Your task to perform on an android device: Search for pizza restaurants on Maps Image 0: 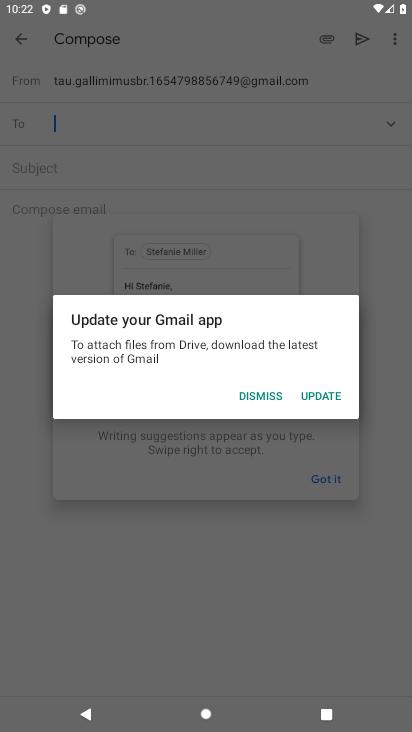
Step 0: press home button
Your task to perform on an android device: Search for pizza restaurants on Maps Image 1: 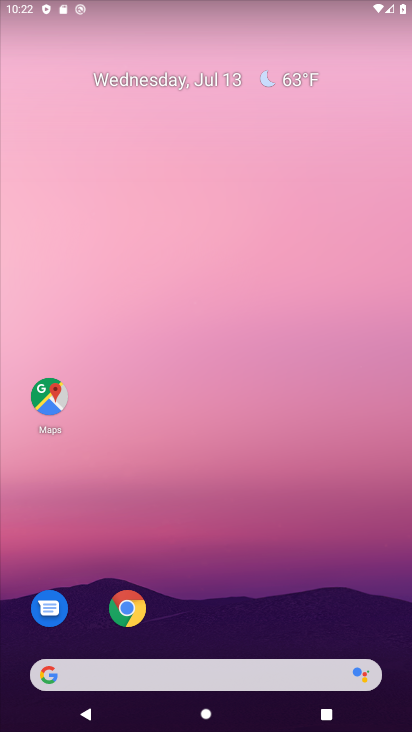
Step 1: drag from (263, 637) to (404, 624)
Your task to perform on an android device: Search for pizza restaurants on Maps Image 2: 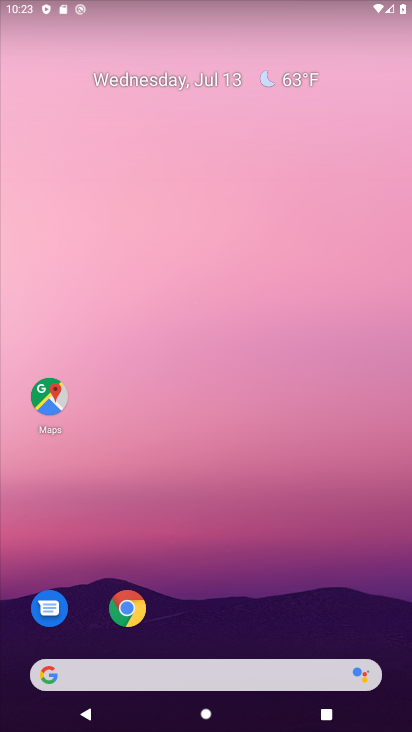
Step 2: click (60, 385)
Your task to perform on an android device: Search for pizza restaurants on Maps Image 3: 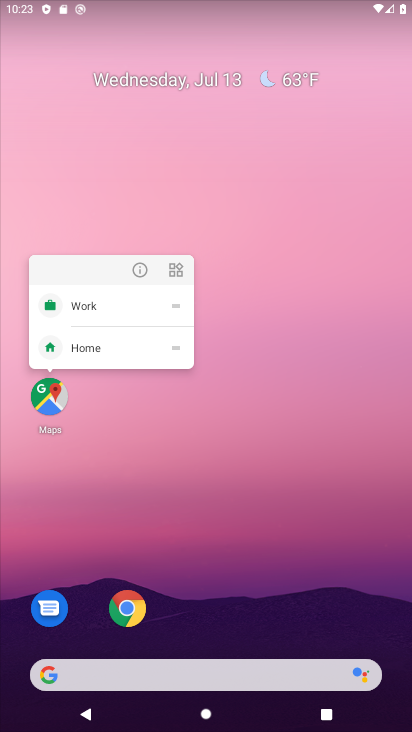
Step 3: click (45, 399)
Your task to perform on an android device: Search for pizza restaurants on Maps Image 4: 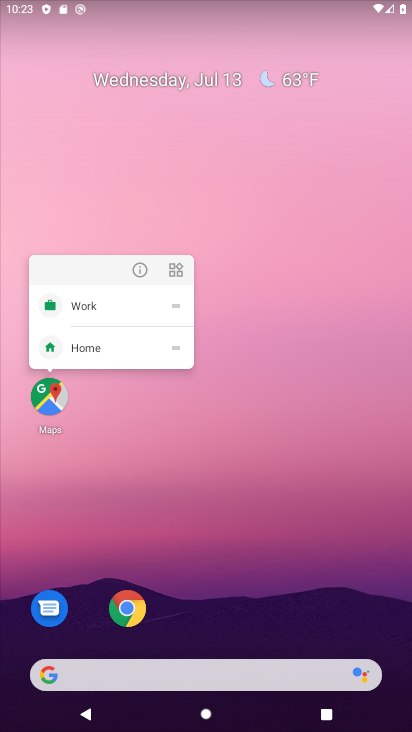
Step 4: click (45, 399)
Your task to perform on an android device: Search for pizza restaurants on Maps Image 5: 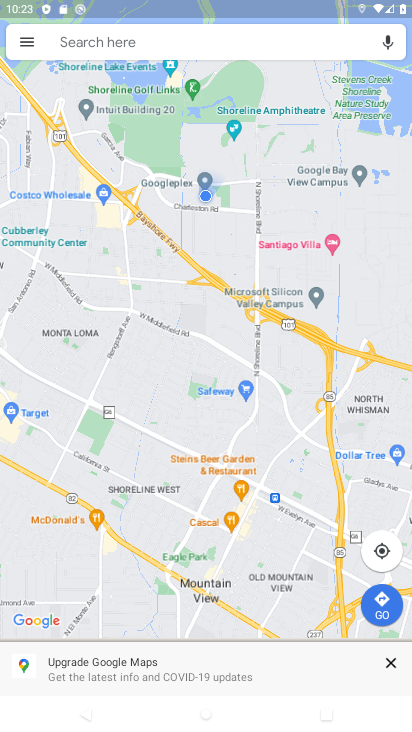
Step 5: click (118, 35)
Your task to perform on an android device: Search for pizza restaurants on Maps Image 6: 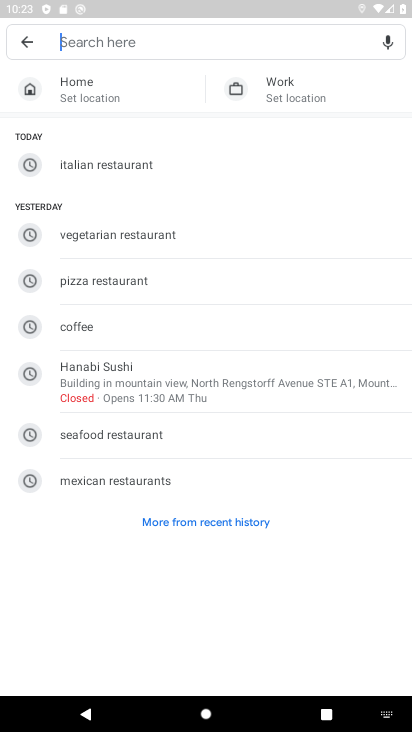
Step 6: type "pizza restaurants"
Your task to perform on an android device: Search for pizza restaurants on Maps Image 7: 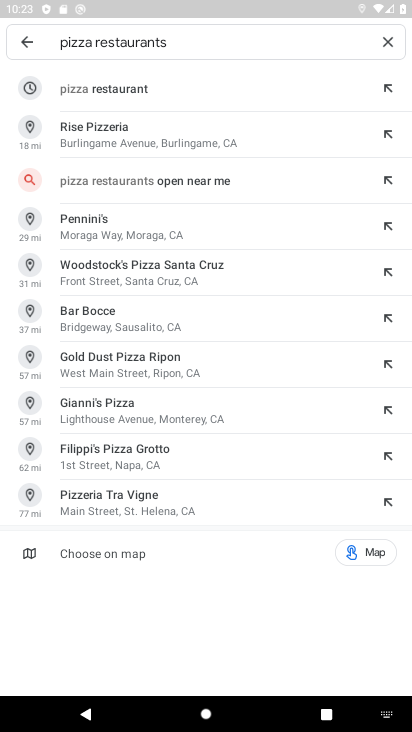
Step 7: click (96, 82)
Your task to perform on an android device: Search for pizza restaurants on Maps Image 8: 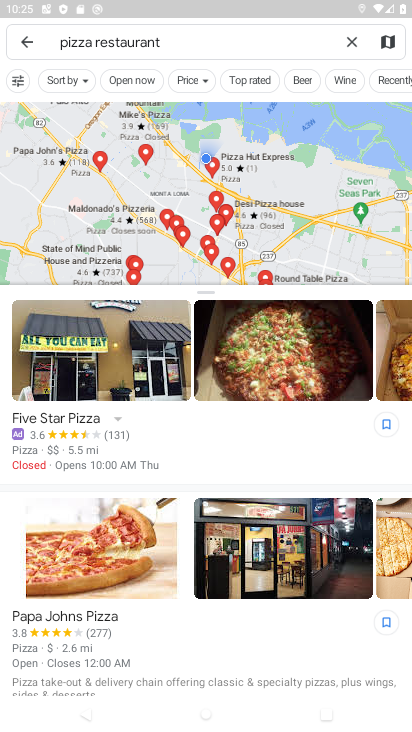
Step 8: task complete